Your task to perform on an android device: Clear the cart on amazon.com. Search for jbl charge 4 on amazon.com, select the first entry, add it to the cart, then select checkout. Image 0: 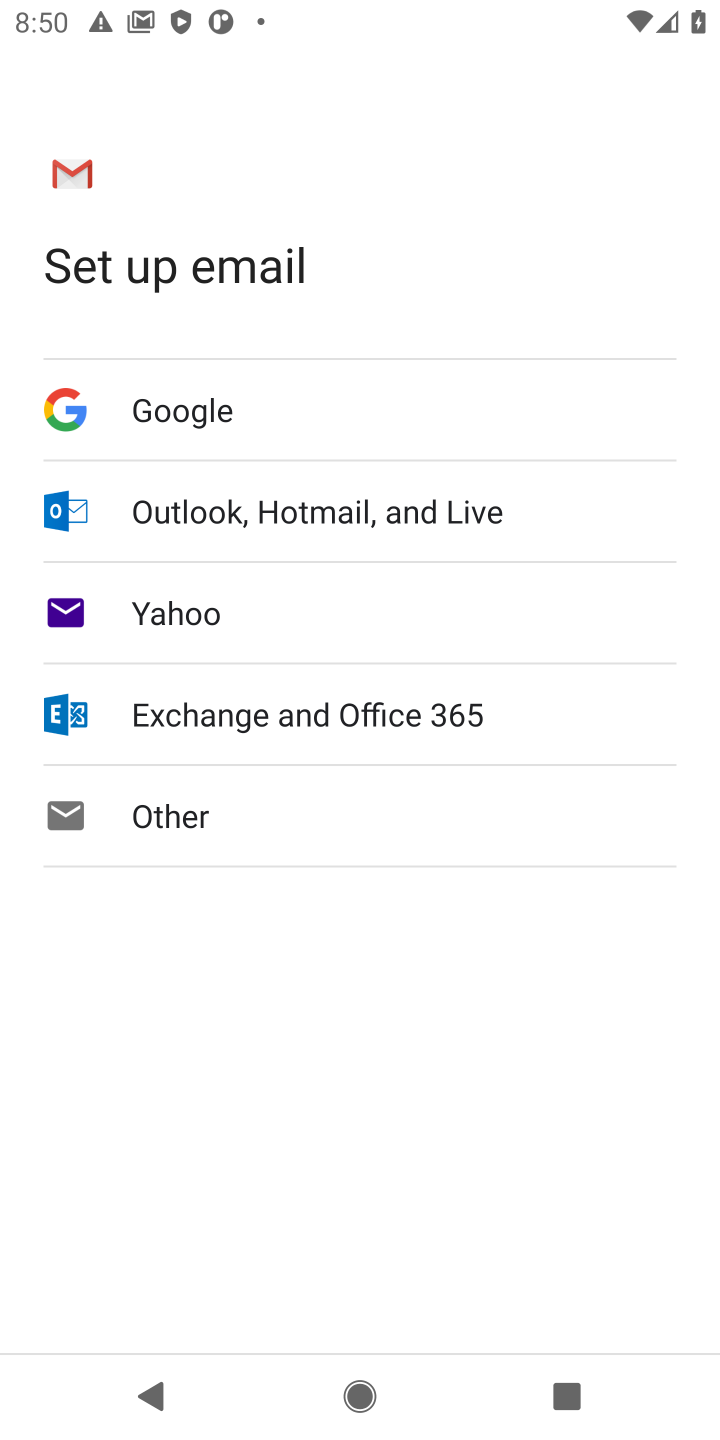
Step 0: press home button
Your task to perform on an android device: Clear the cart on amazon.com. Search for jbl charge 4 on amazon.com, select the first entry, add it to the cart, then select checkout. Image 1: 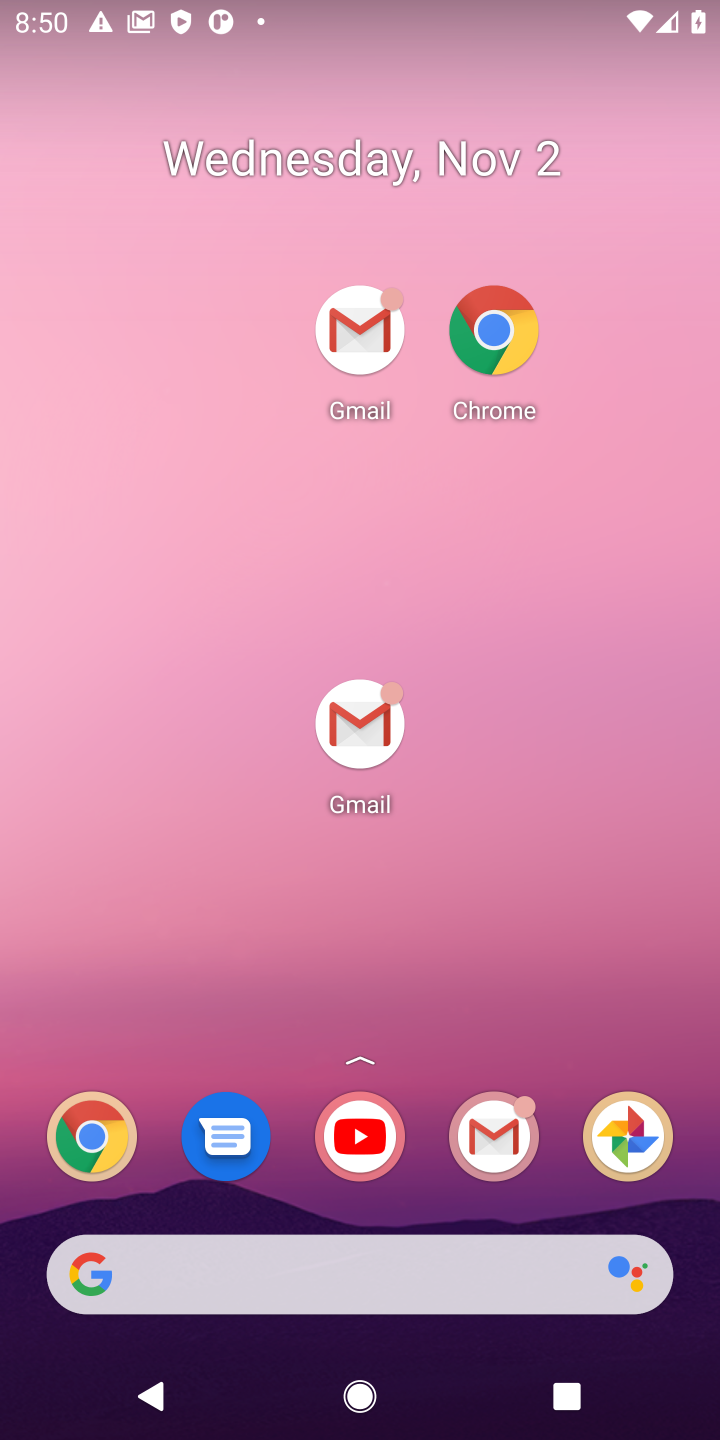
Step 1: drag from (368, 1051) to (384, 883)
Your task to perform on an android device: Clear the cart on amazon.com. Search for jbl charge 4 on amazon.com, select the first entry, add it to the cart, then select checkout. Image 2: 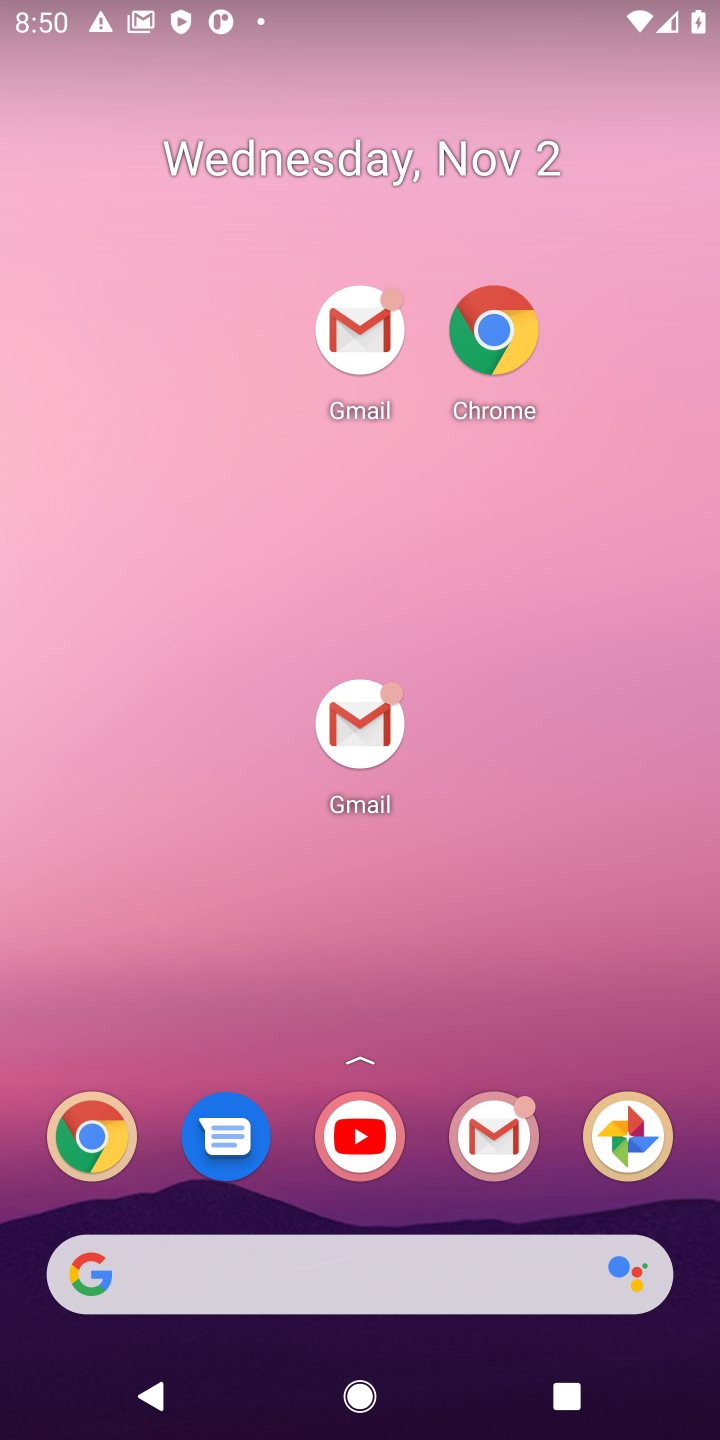
Step 2: drag from (429, 1322) to (457, 218)
Your task to perform on an android device: Clear the cart on amazon.com. Search for jbl charge 4 on amazon.com, select the first entry, add it to the cart, then select checkout. Image 3: 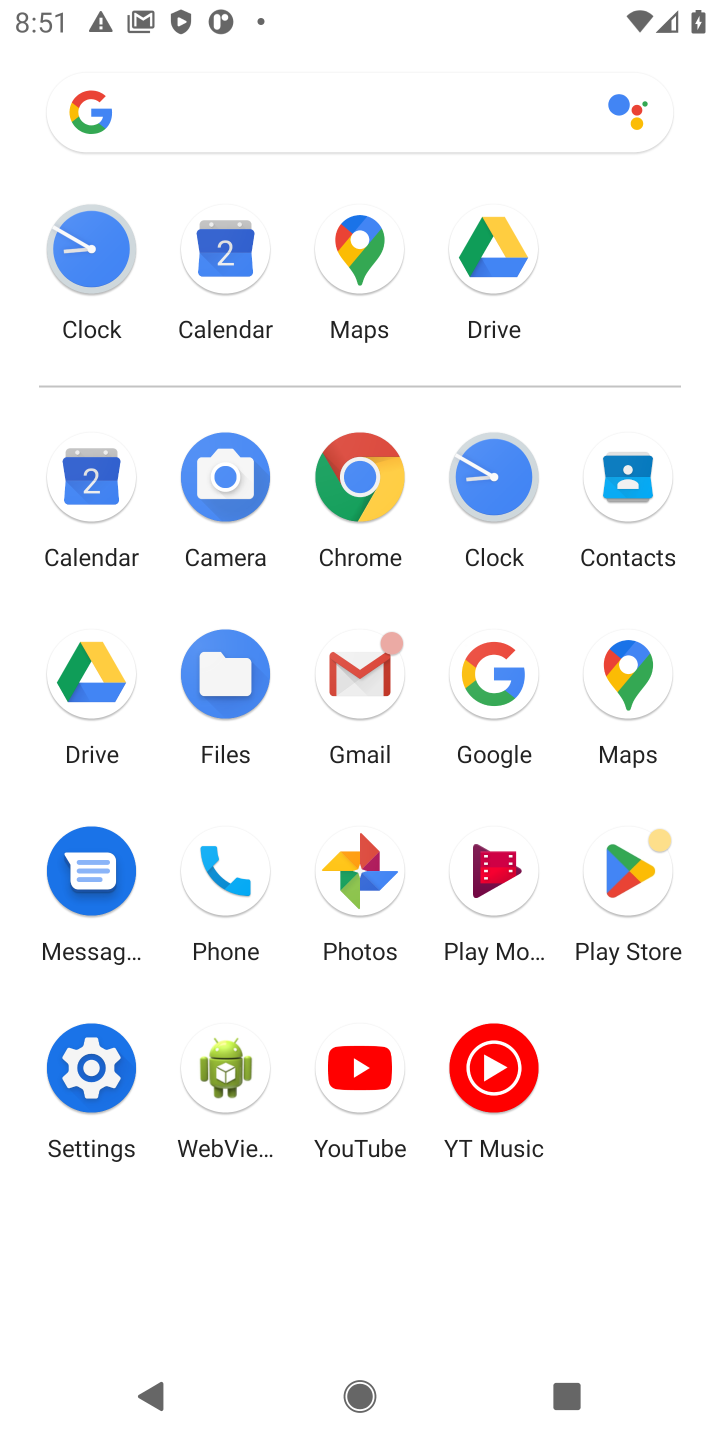
Step 3: click (484, 674)
Your task to perform on an android device: Clear the cart on amazon.com. Search for jbl charge 4 on amazon.com, select the first entry, add it to the cart, then select checkout. Image 4: 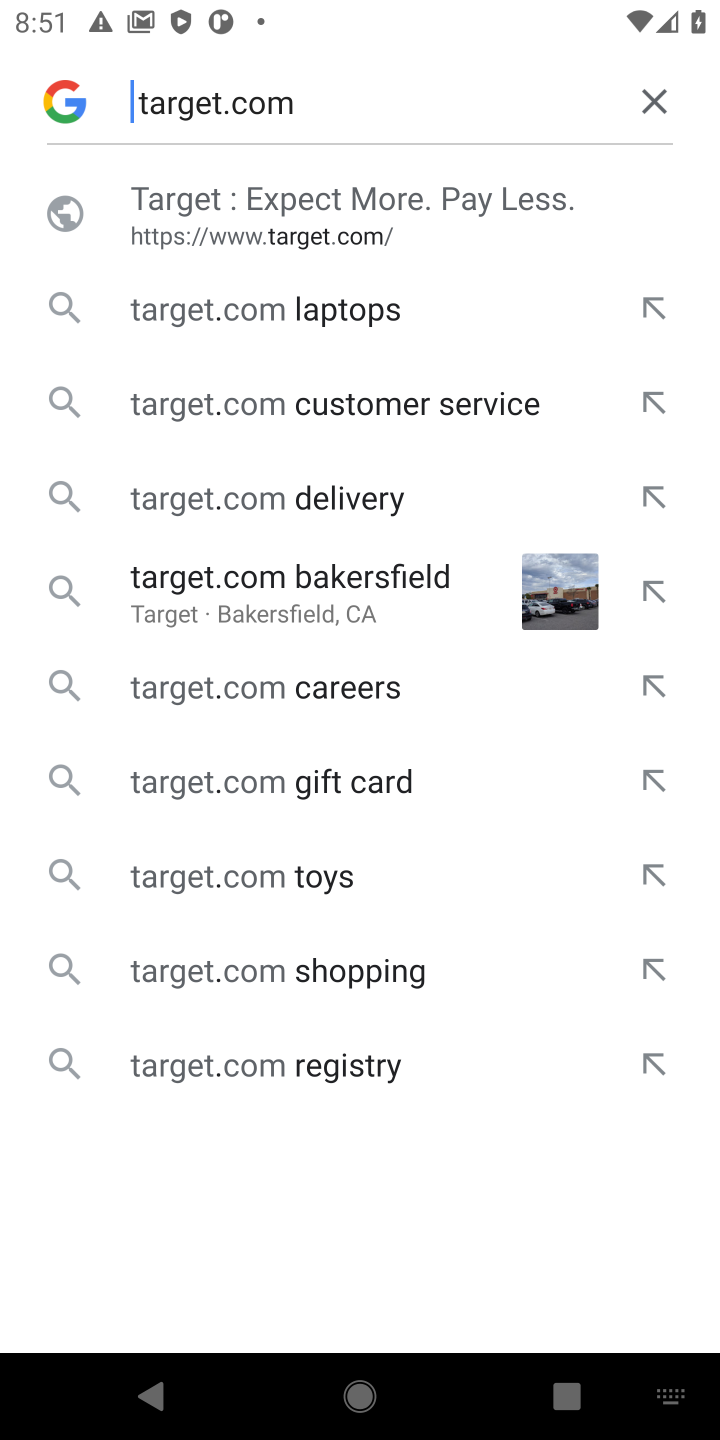
Step 4: click (644, 88)
Your task to perform on an android device: Clear the cart on amazon.com. Search for jbl charge 4 on amazon.com, select the first entry, add it to the cart, then select checkout. Image 5: 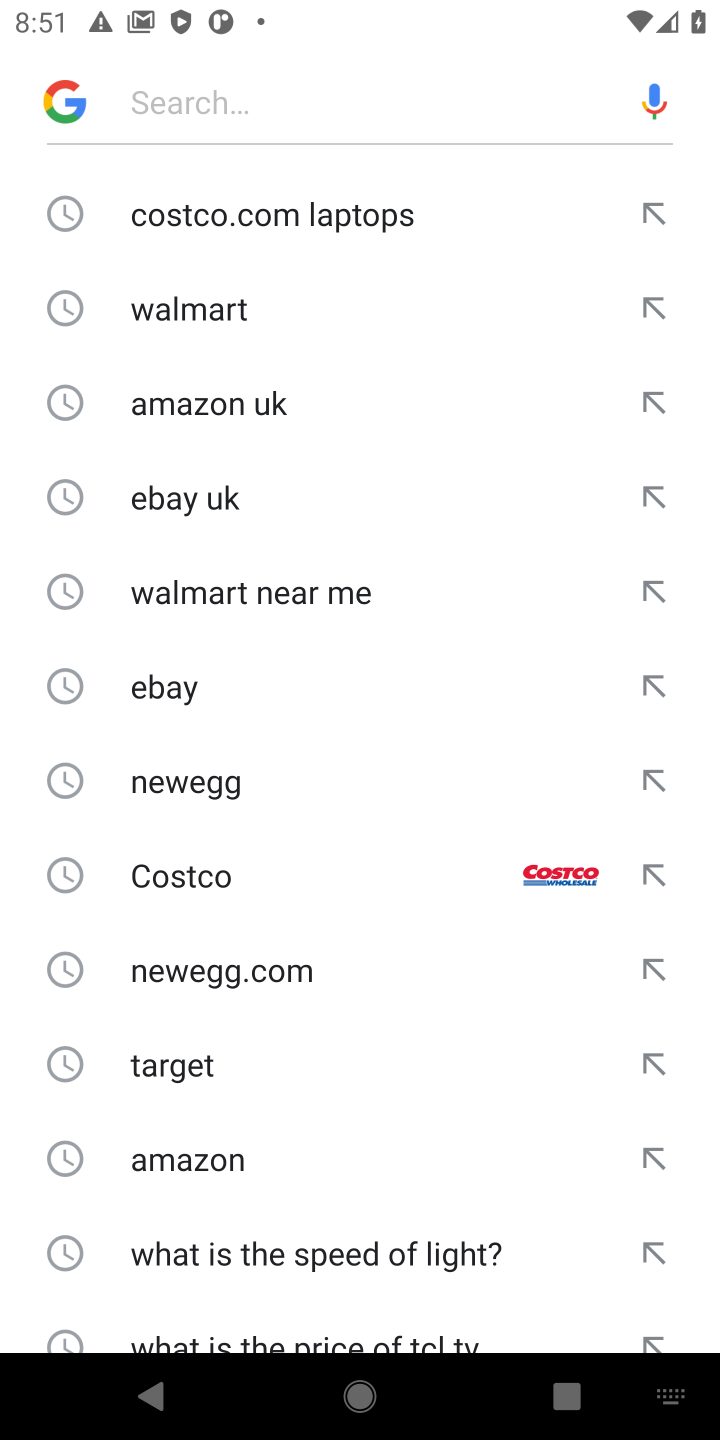
Step 5: click (300, 106)
Your task to perform on an android device: Clear the cart on amazon.com. Search for jbl charge 4 on amazon.com, select the first entry, add it to the cart, then select checkout. Image 6: 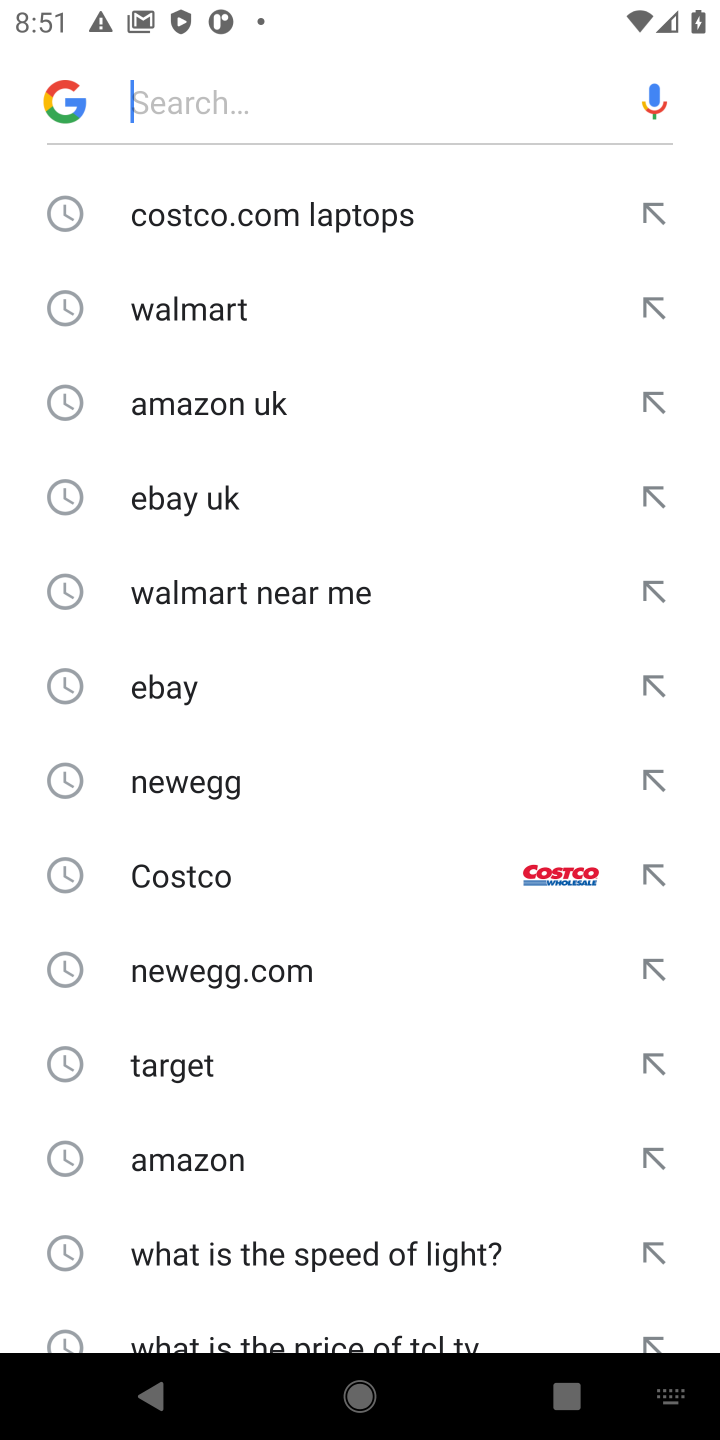
Step 6: type "amazon.com "
Your task to perform on an android device: Clear the cart on amazon.com. Search for jbl charge 4 on amazon.com, select the first entry, add it to the cart, then select checkout. Image 7: 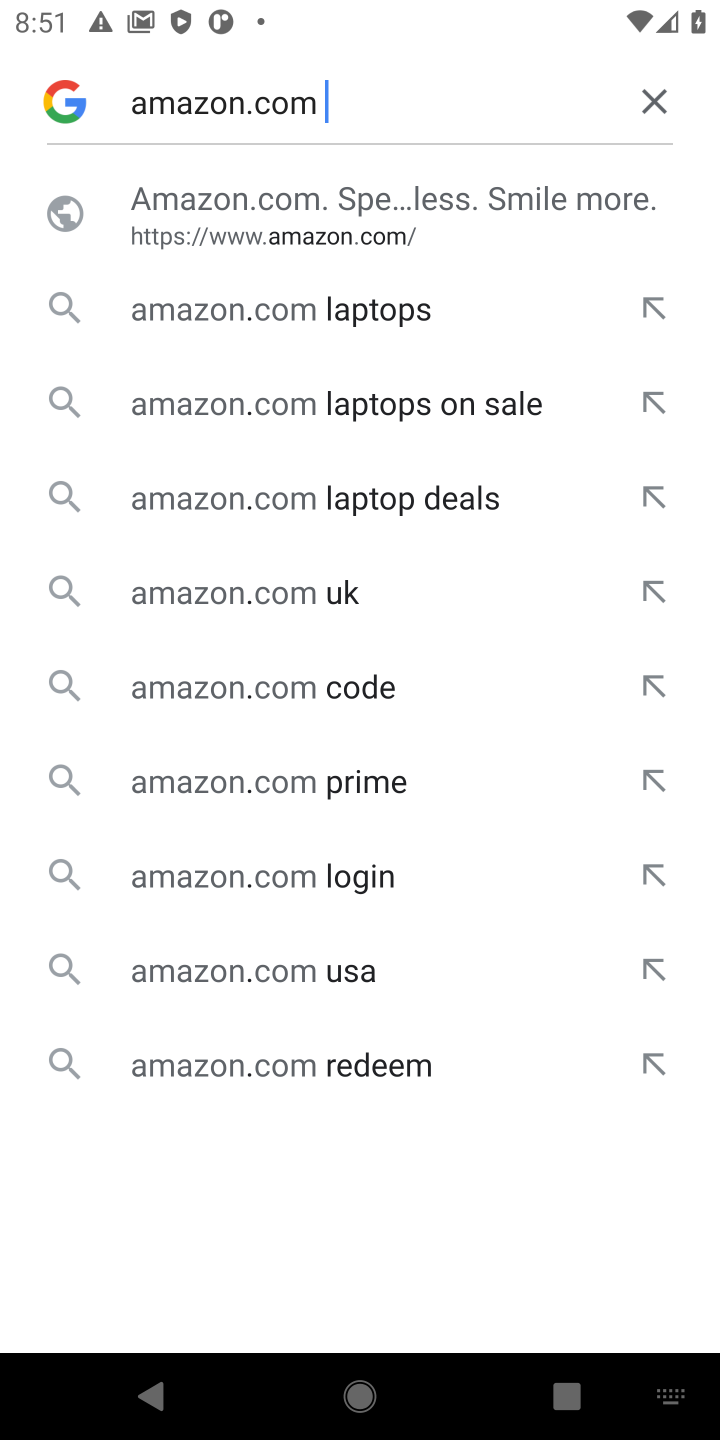
Step 7: click (278, 185)
Your task to perform on an android device: Clear the cart on amazon.com. Search for jbl charge 4 on amazon.com, select the first entry, add it to the cart, then select checkout. Image 8: 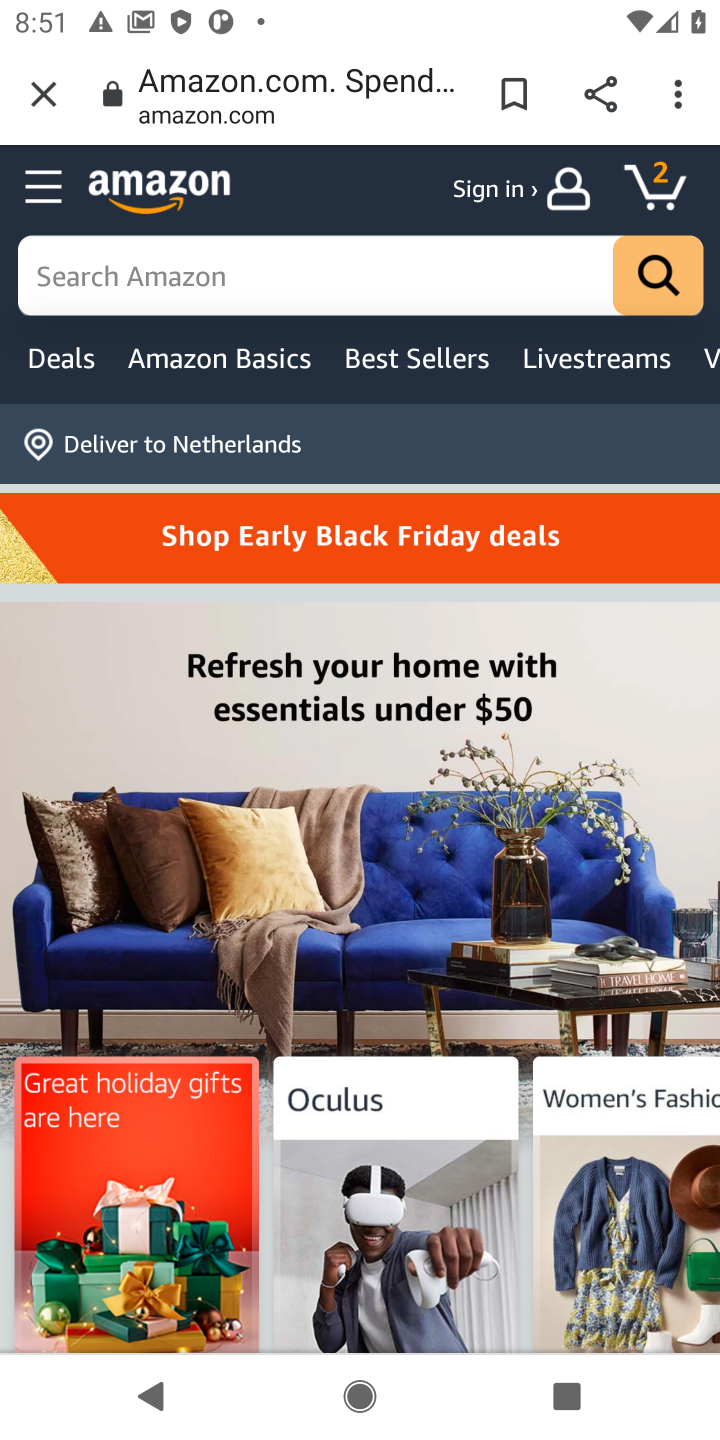
Step 8: click (416, 259)
Your task to perform on an android device: Clear the cart on amazon.com. Search for jbl charge 4 on amazon.com, select the first entry, add it to the cart, then select checkout. Image 9: 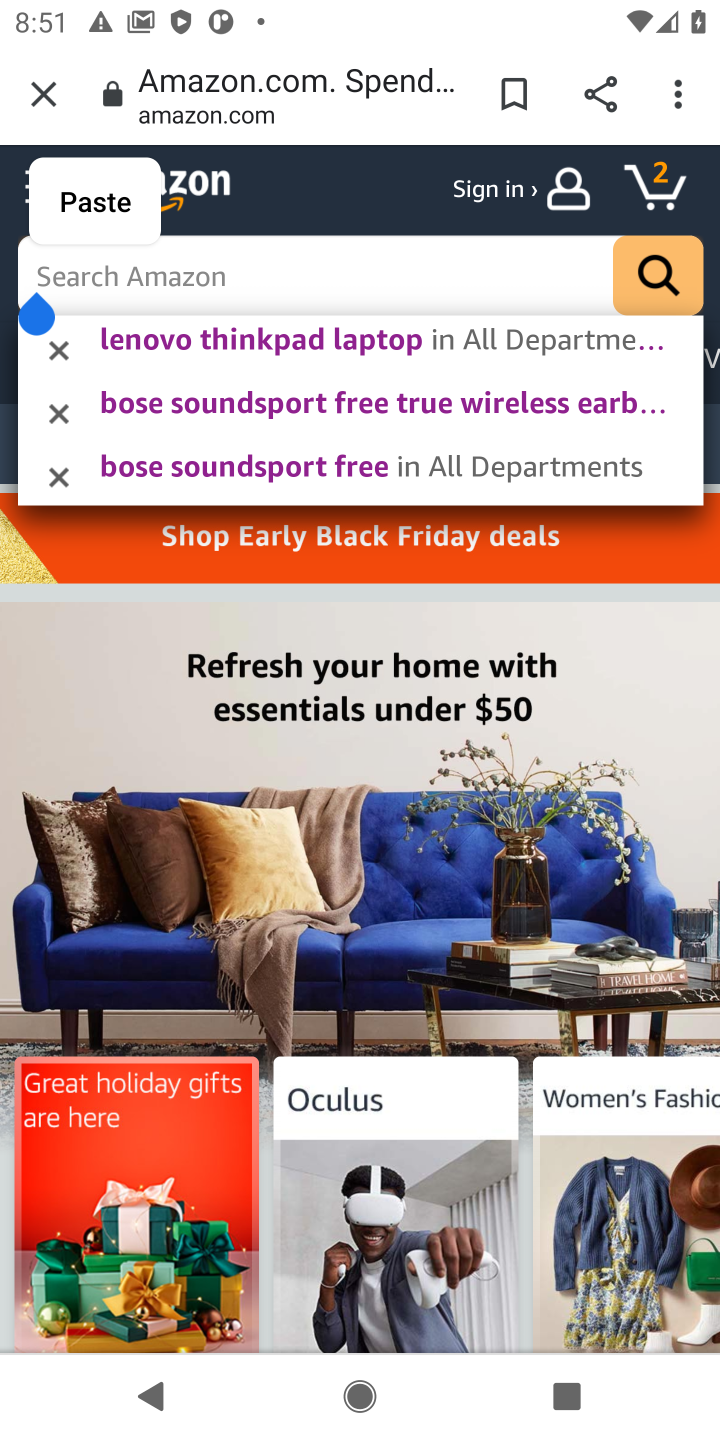
Step 9: type " jbl charge 4 "
Your task to perform on an android device: Clear the cart on amazon.com. Search for jbl charge 4 on amazon.com, select the first entry, add it to the cart, then select checkout. Image 10: 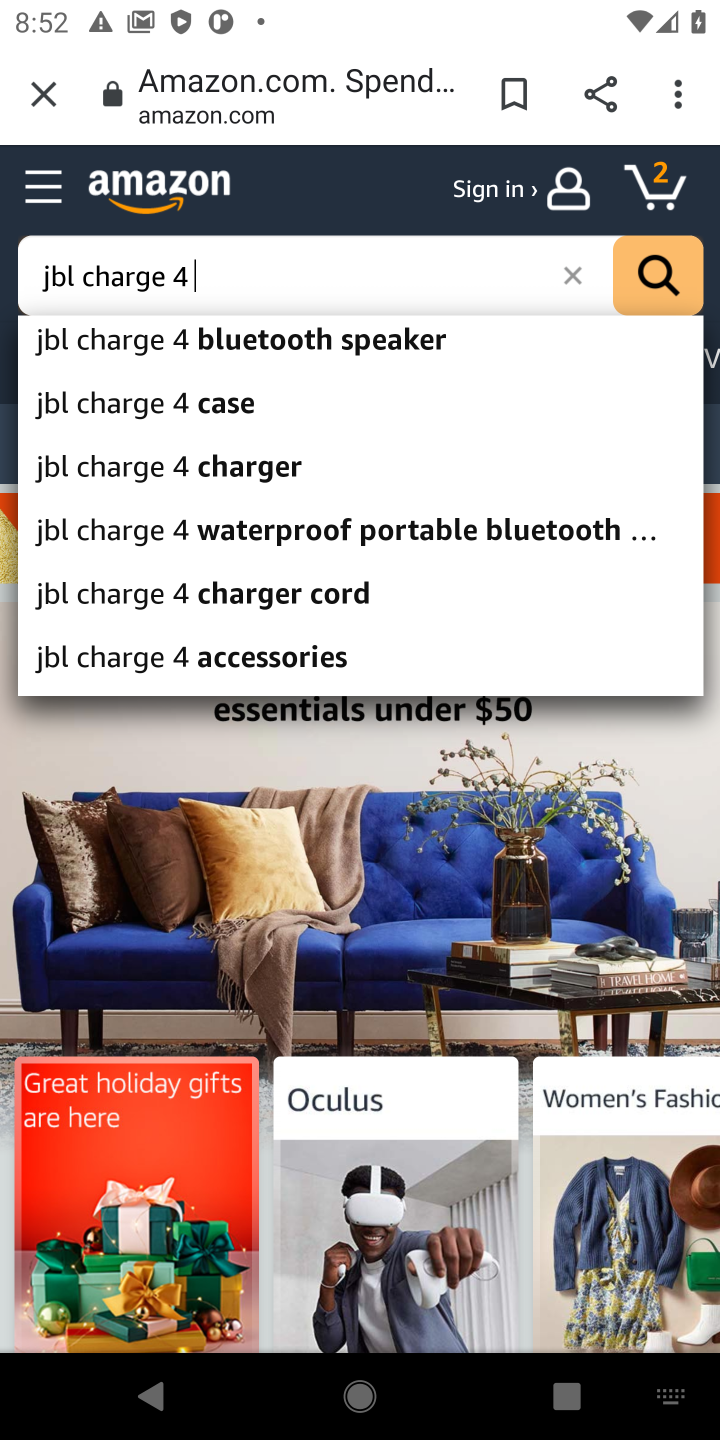
Step 10: click (288, 337)
Your task to perform on an android device: Clear the cart on amazon.com. Search for jbl charge 4 on amazon.com, select the first entry, add it to the cart, then select checkout. Image 11: 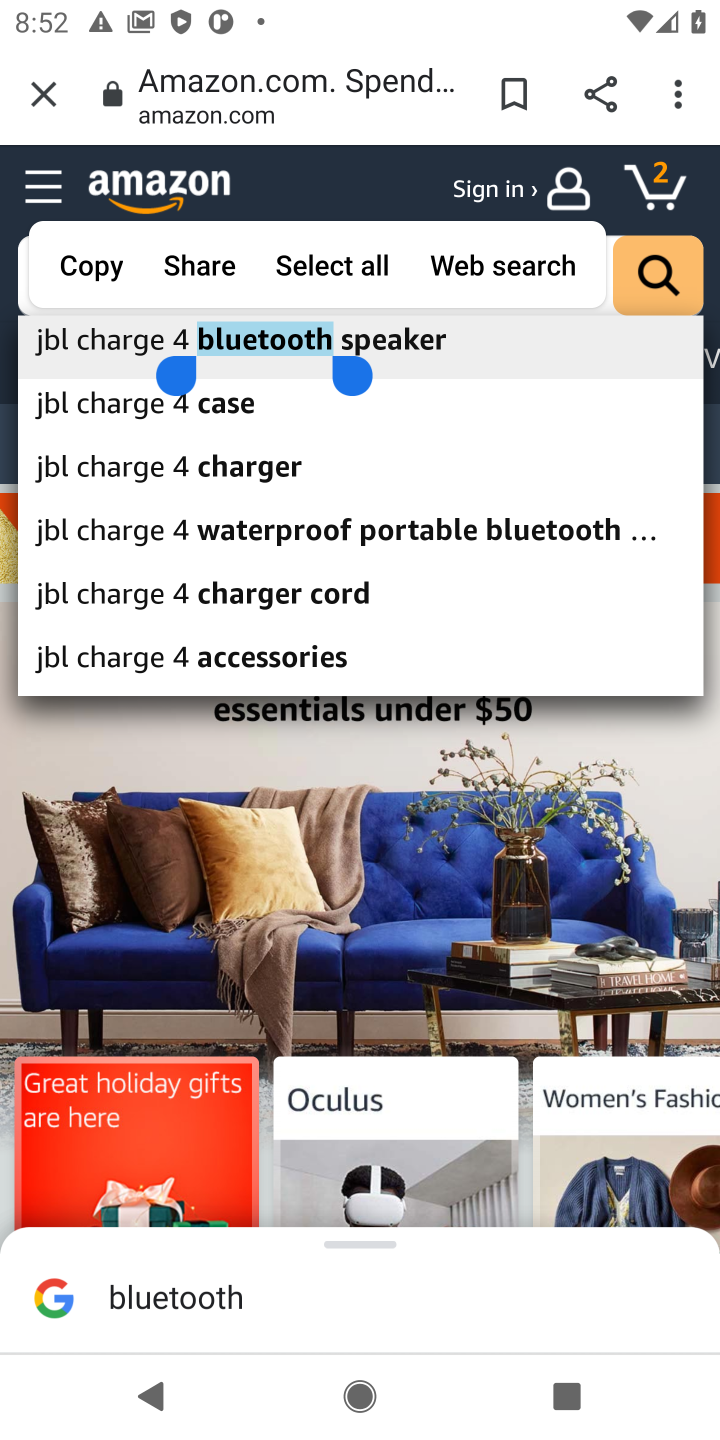
Step 11: click (480, 345)
Your task to perform on an android device: Clear the cart on amazon.com. Search for jbl charge 4 on amazon.com, select the first entry, add it to the cart, then select checkout. Image 12: 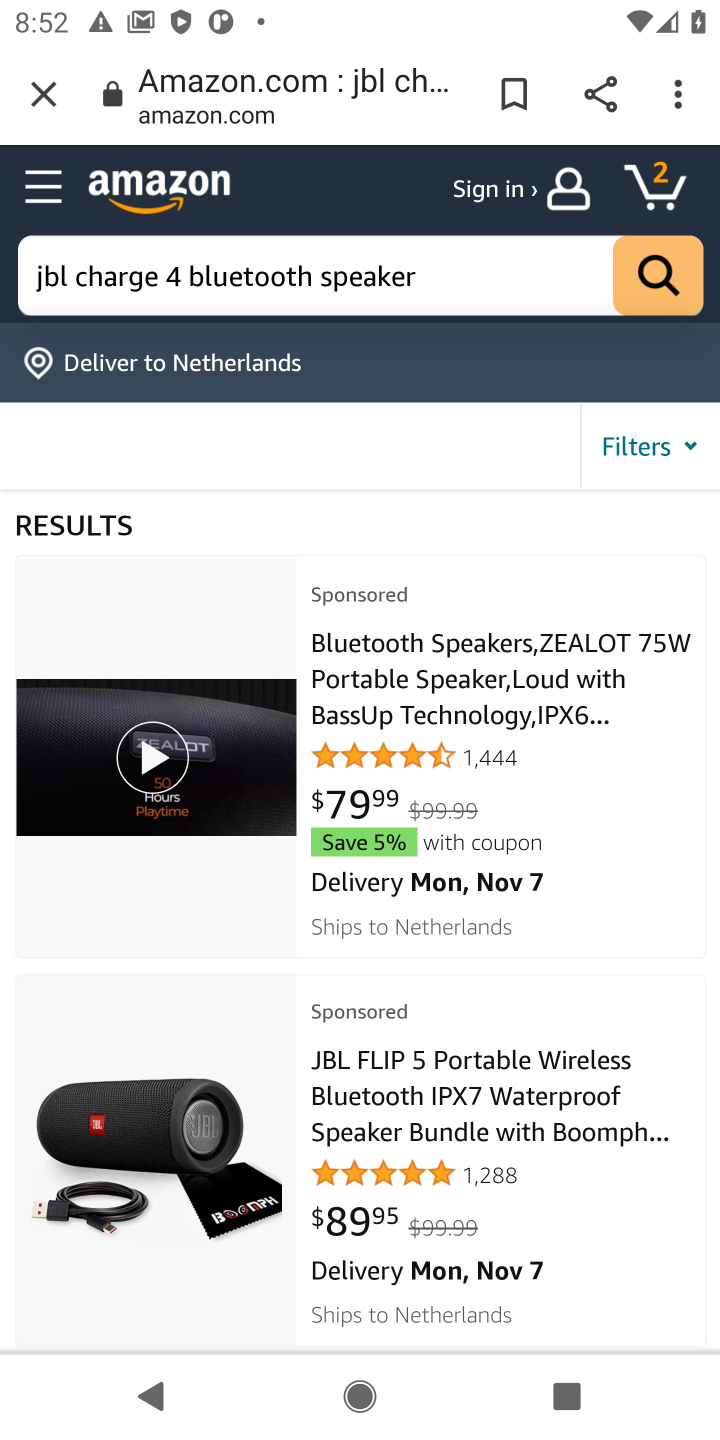
Step 12: click (425, 648)
Your task to perform on an android device: Clear the cart on amazon.com. Search for jbl charge 4 on amazon.com, select the first entry, add it to the cart, then select checkout. Image 13: 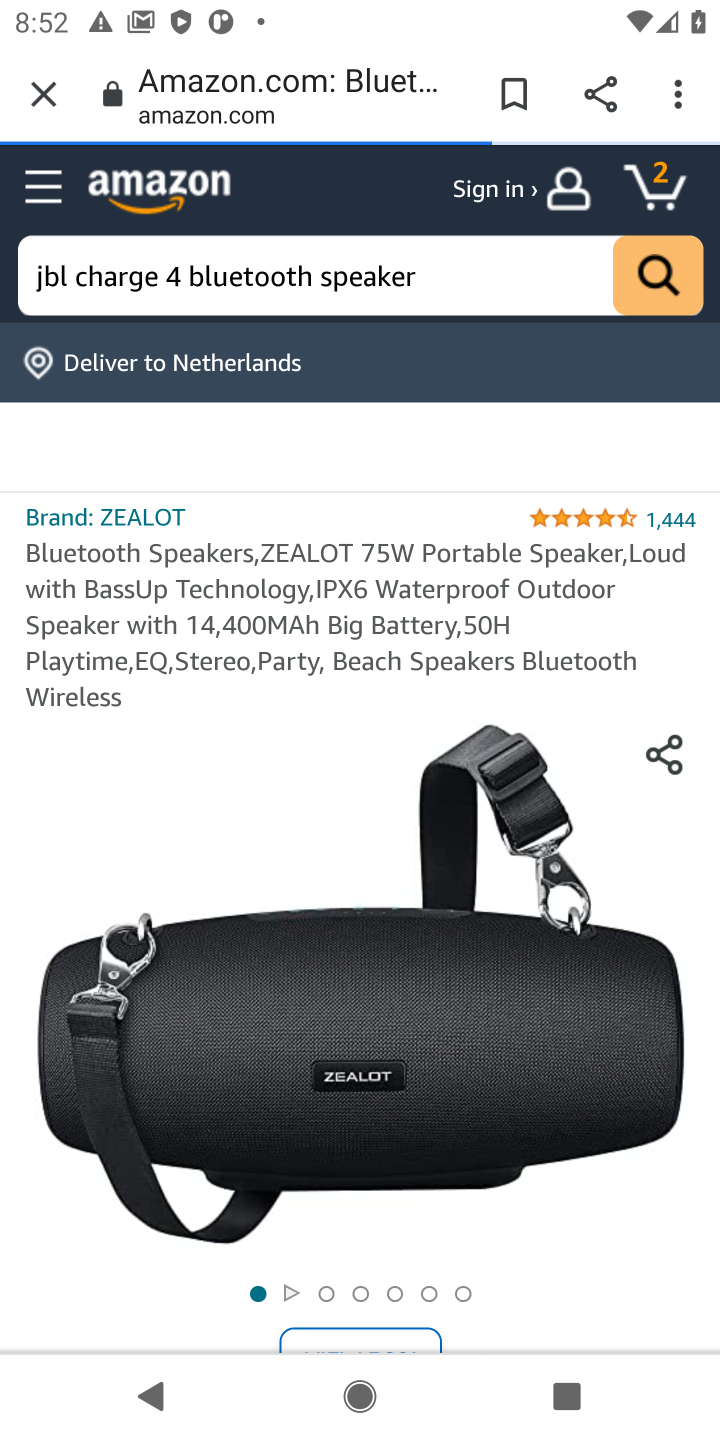
Step 13: drag from (382, 1187) to (436, 552)
Your task to perform on an android device: Clear the cart on amazon.com. Search for jbl charge 4 on amazon.com, select the first entry, add it to the cart, then select checkout. Image 14: 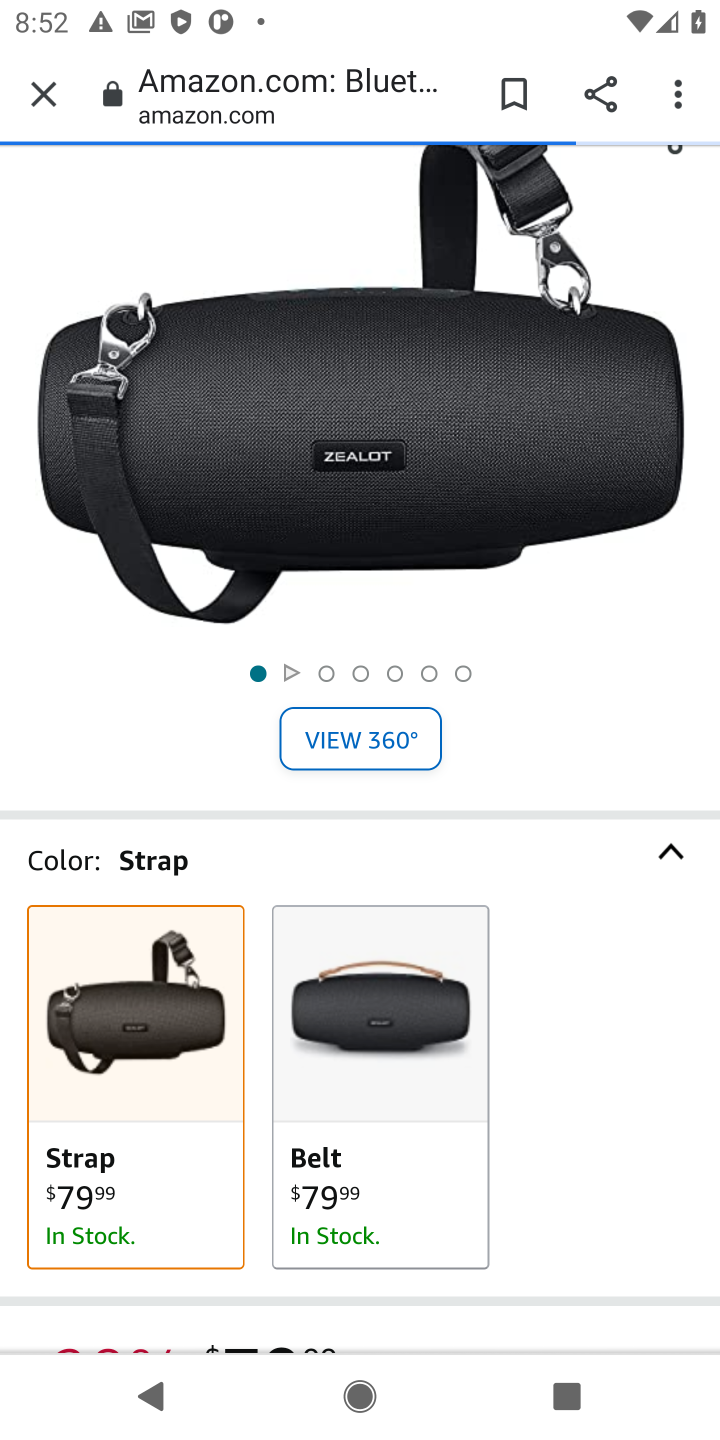
Step 14: drag from (586, 1220) to (582, 398)
Your task to perform on an android device: Clear the cart on amazon.com. Search for jbl charge 4 on amazon.com, select the first entry, add it to the cart, then select checkout. Image 15: 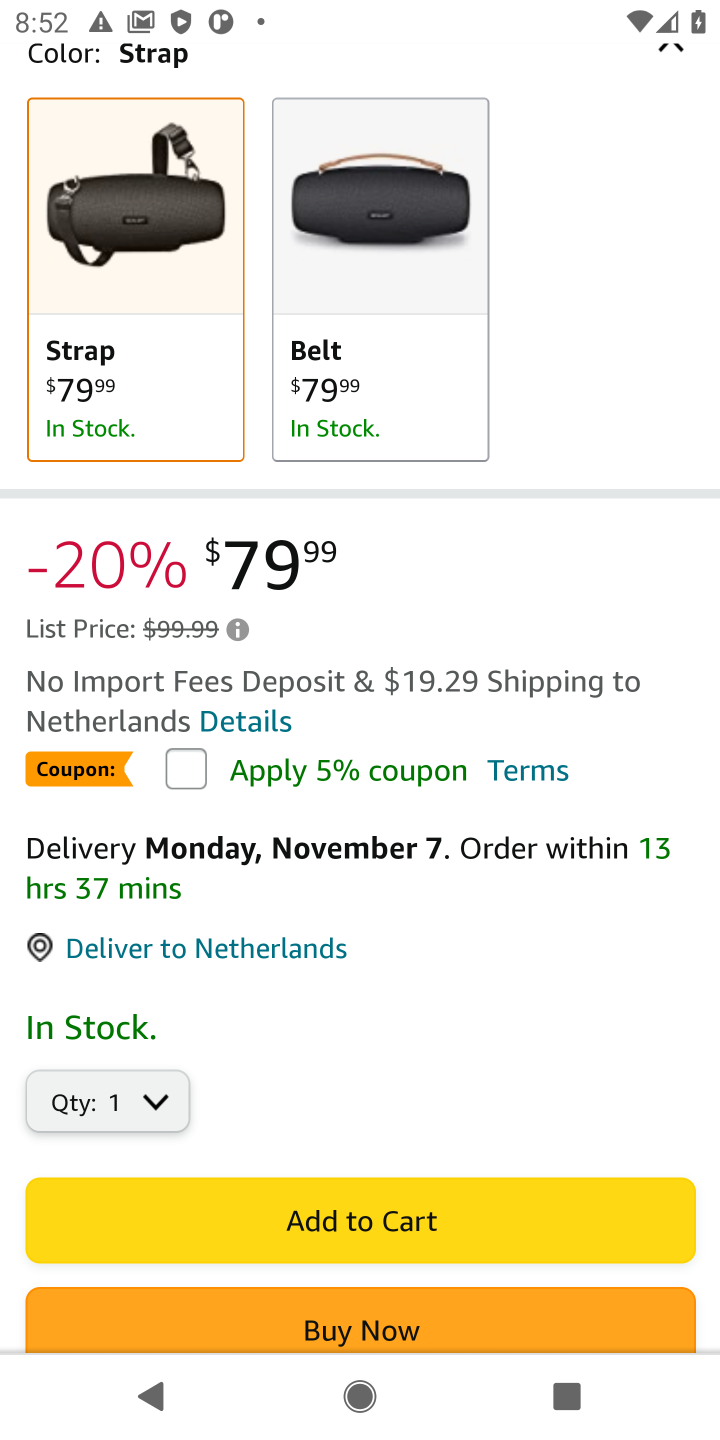
Step 15: drag from (397, 1089) to (454, 560)
Your task to perform on an android device: Clear the cart on amazon.com. Search for jbl charge 4 on amazon.com, select the first entry, add it to the cart, then select checkout. Image 16: 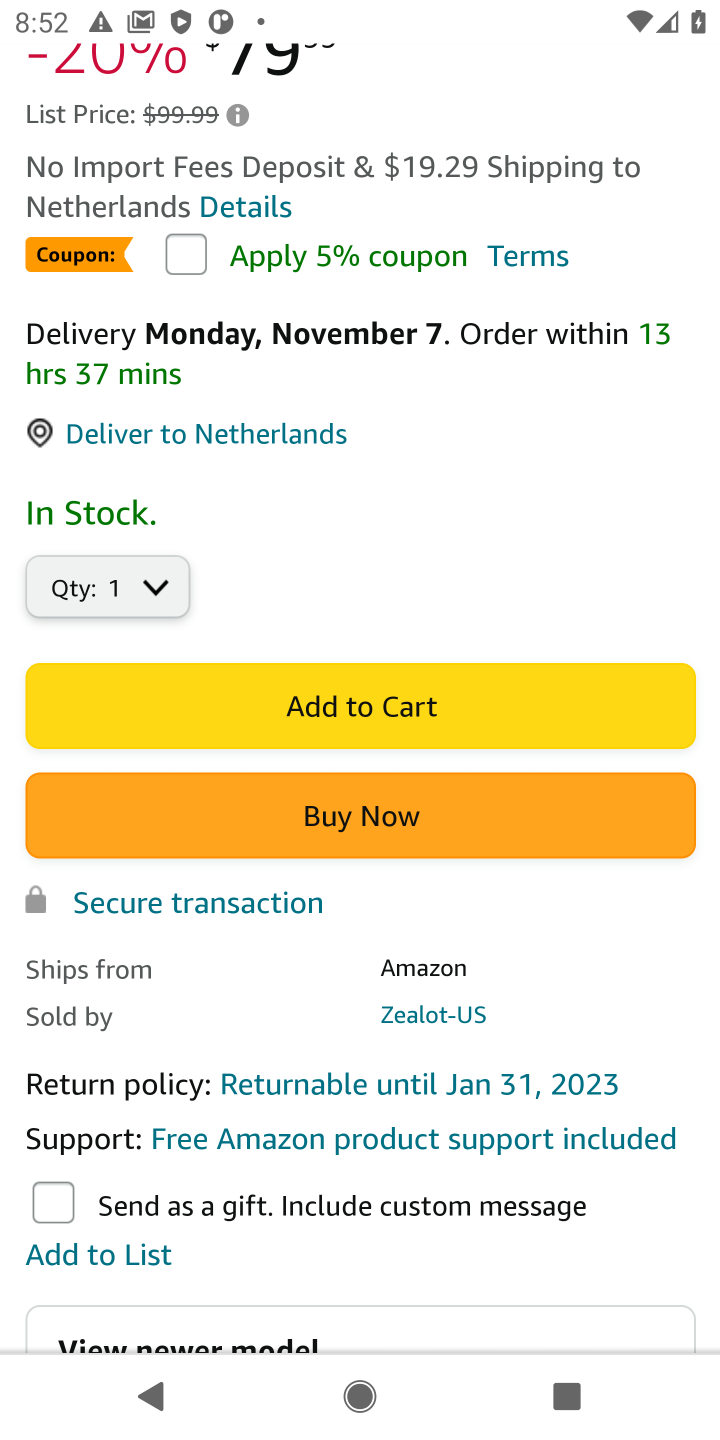
Step 16: click (341, 690)
Your task to perform on an android device: Clear the cart on amazon.com. Search for jbl charge 4 on amazon.com, select the first entry, add it to the cart, then select checkout. Image 17: 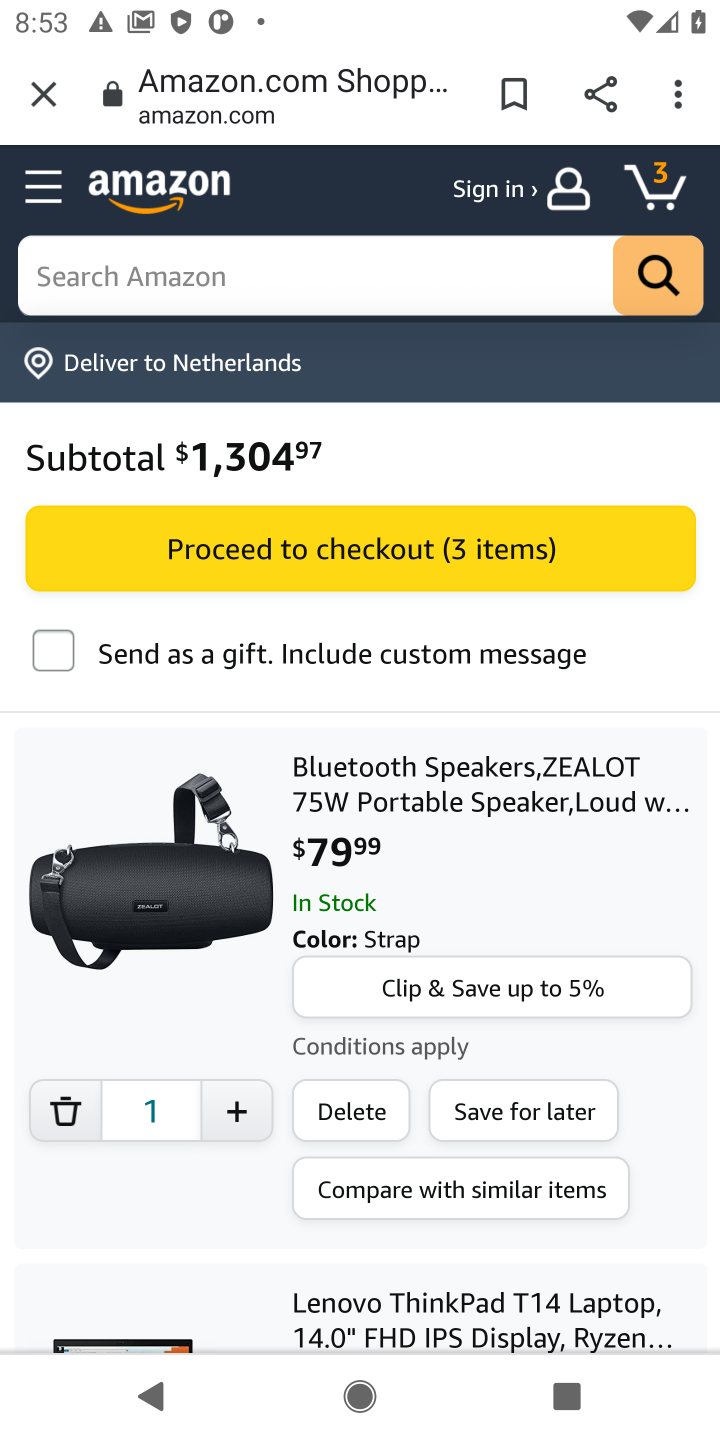
Step 17: task complete